Your task to perform on an android device: change text size in settings app Image 0: 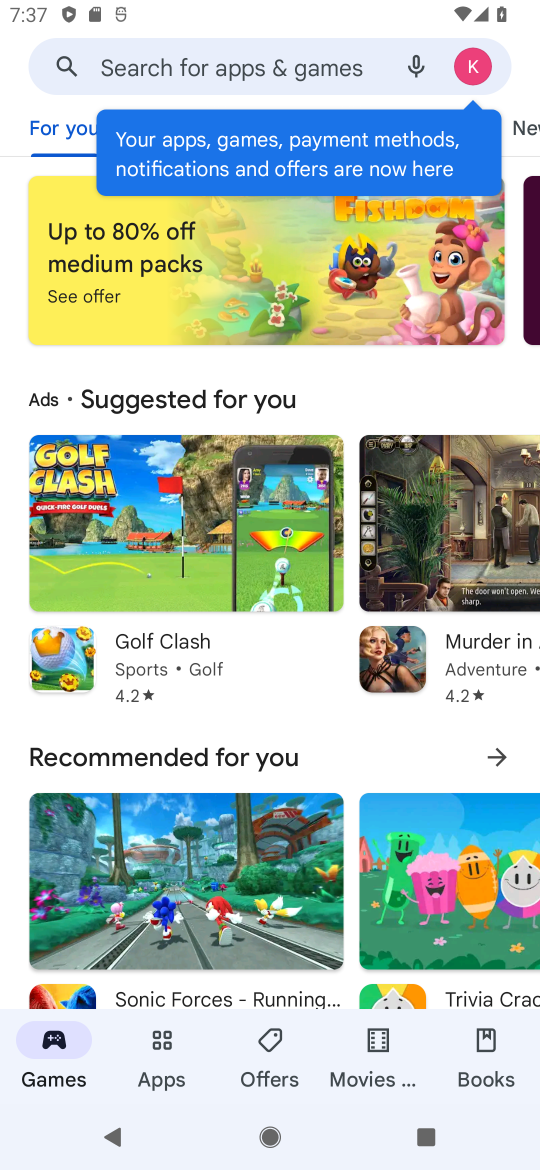
Step 0: press home button
Your task to perform on an android device: change text size in settings app Image 1: 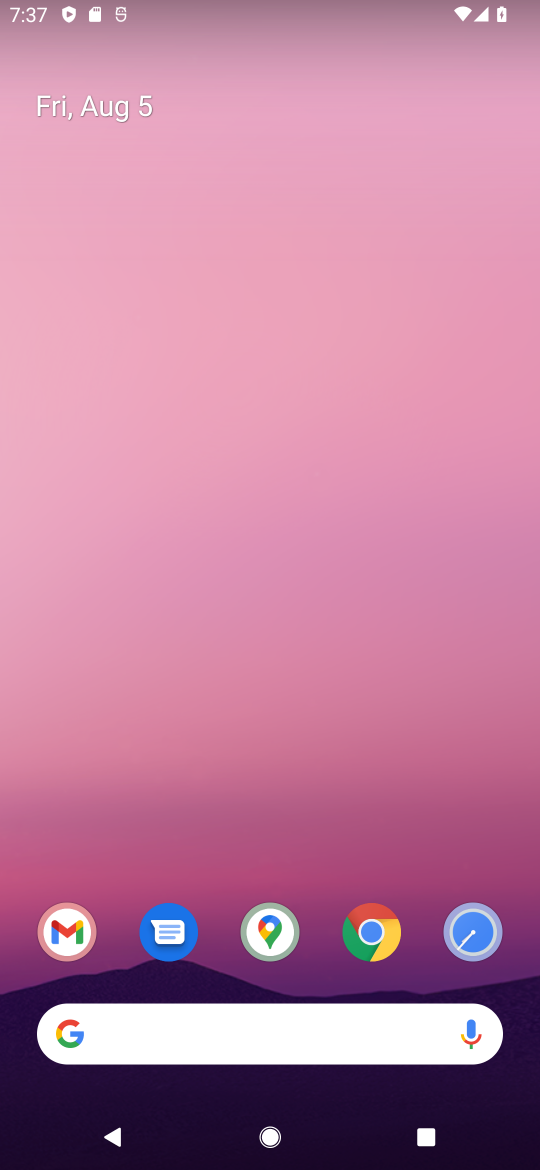
Step 1: drag from (415, 859) to (403, 104)
Your task to perform on an android device: change text size in settings app Image 2: 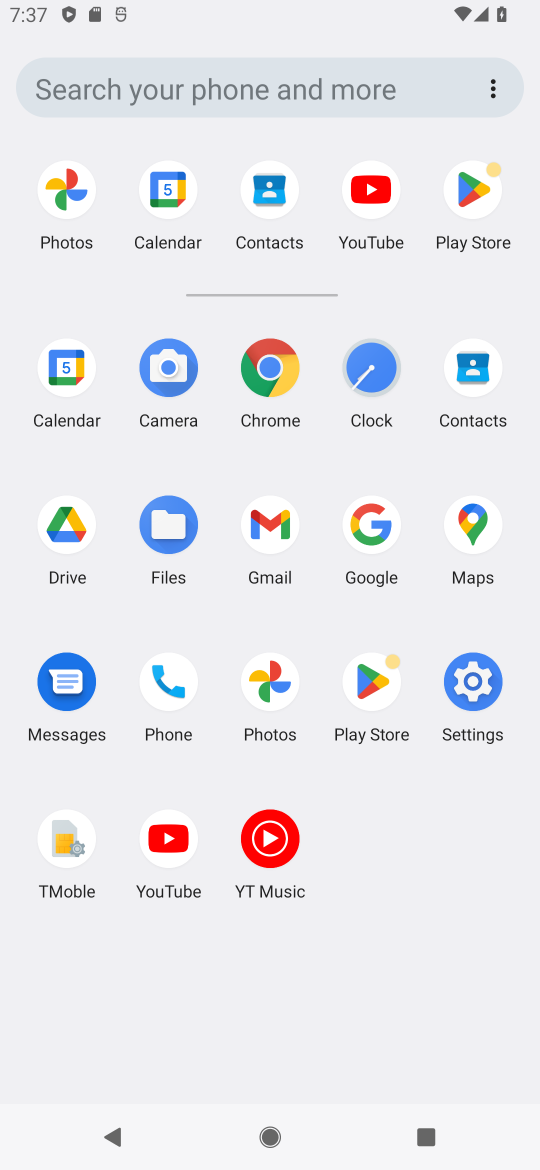
Step 2: click (485, 676)
Your task to perform on an android device: change text size in settings app Image 3: 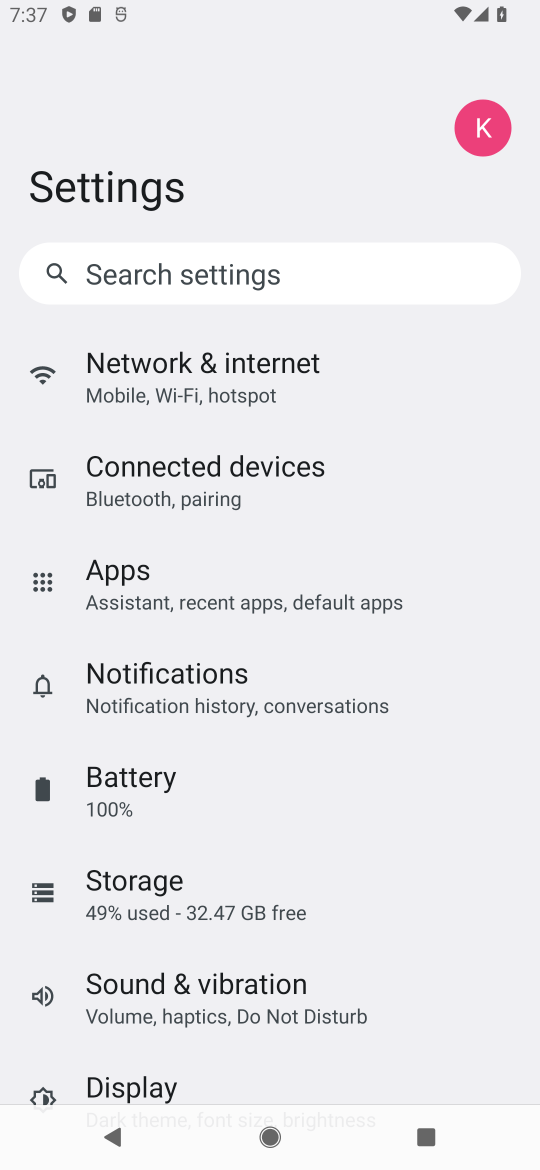
Step 3: drag from (378, 893) to (344, 396)
Your task to perform on an android device: change text size in settings app Image 4: 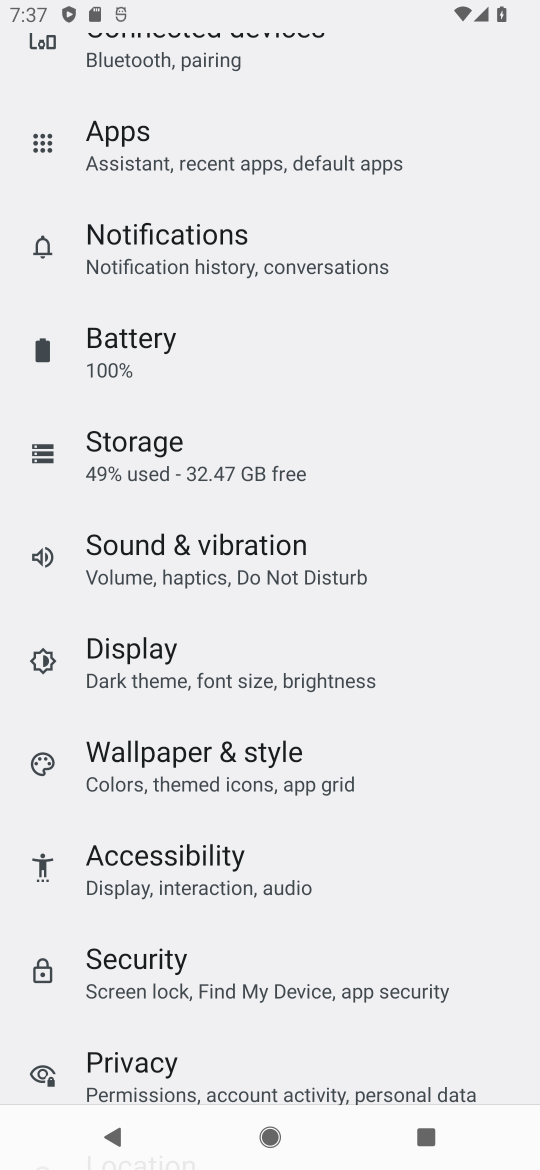
Step 4: click (166, 649)
Your task to perform on an android device: change text size in settings app Image 5: 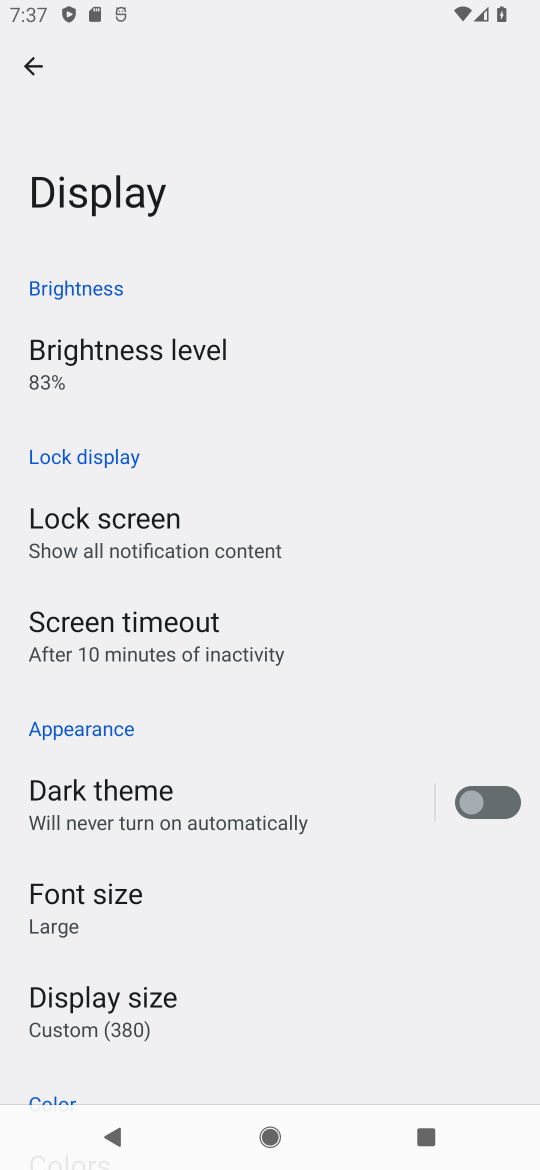
Step 5: click (187, 899)
Your task to perform on an android device: change text size in settings app Image 6: 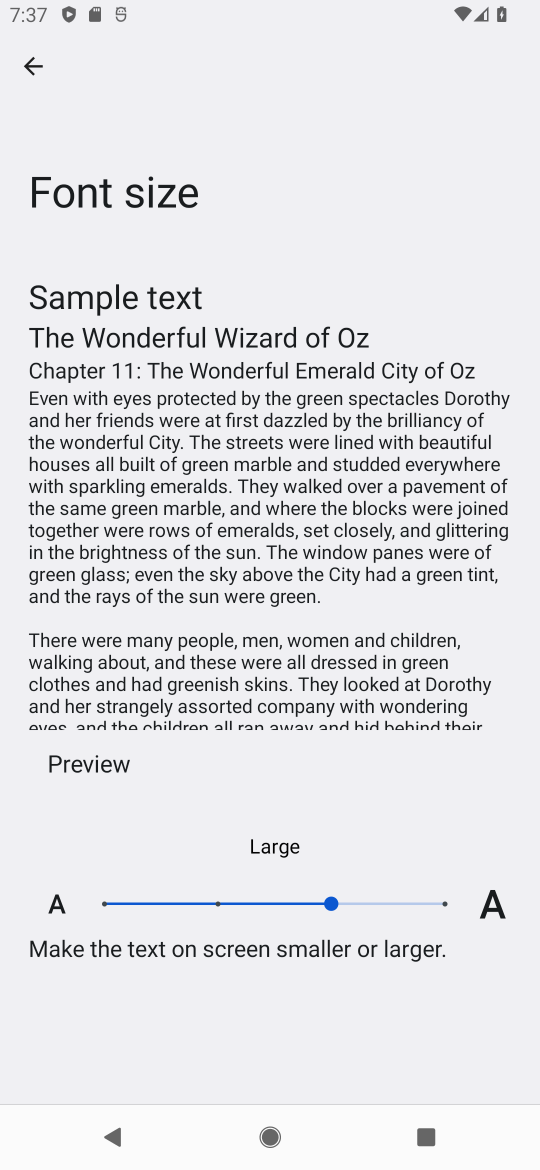
Step 6: click (220, 908)
Your task to perform on an android device: change text size in settings app Image 7: 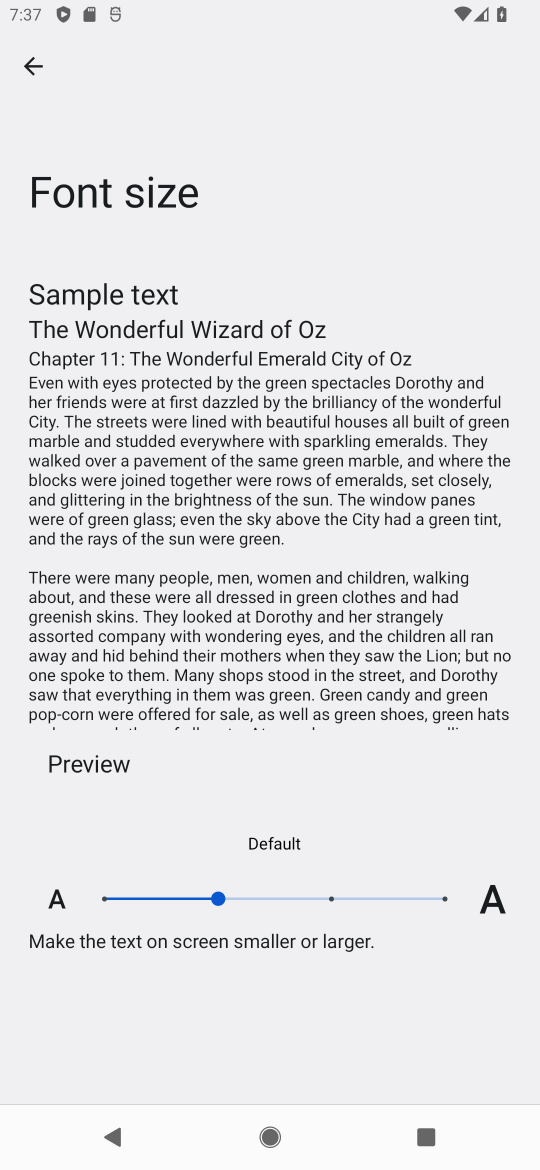
Step 7: task complete